Your task to perform on an android device: Open network settings Image 0: 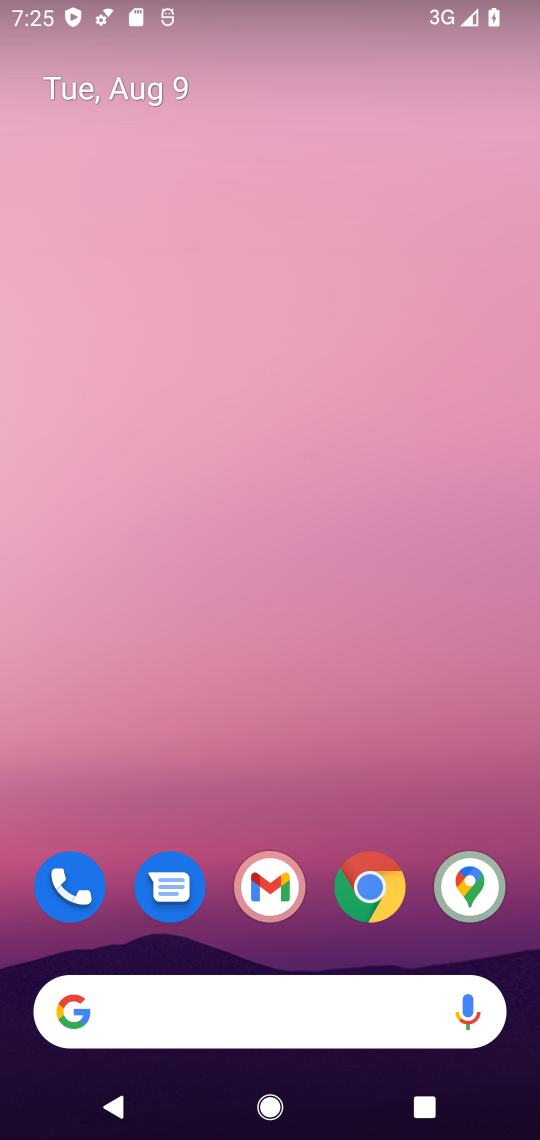
Step 0: drag from (294, 803) to (327, 0)
Your task to perform on an android device: Open network settings Image 1: 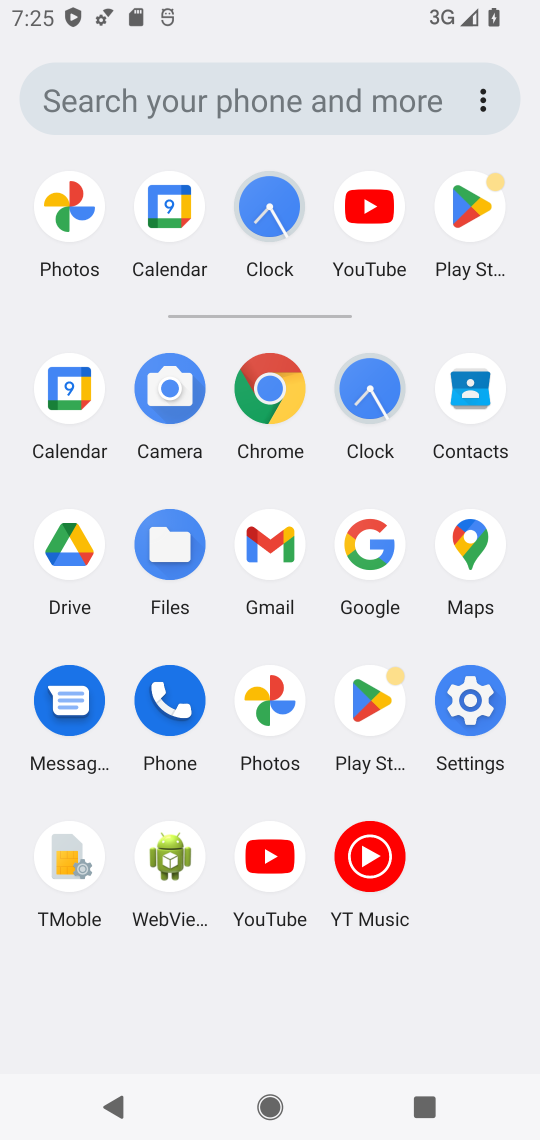
Step 1: click (466, 695)
Your task to perform on an android device: Open network settings Image 2: 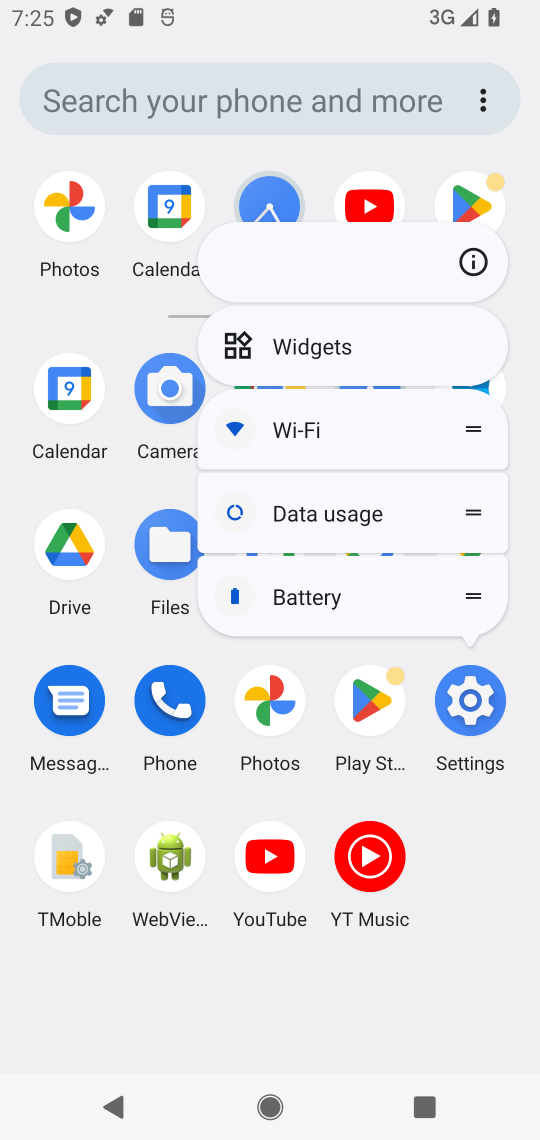
Step 2: click (466, 695)
Your task to perform on an android device: Open network settings Image 3: 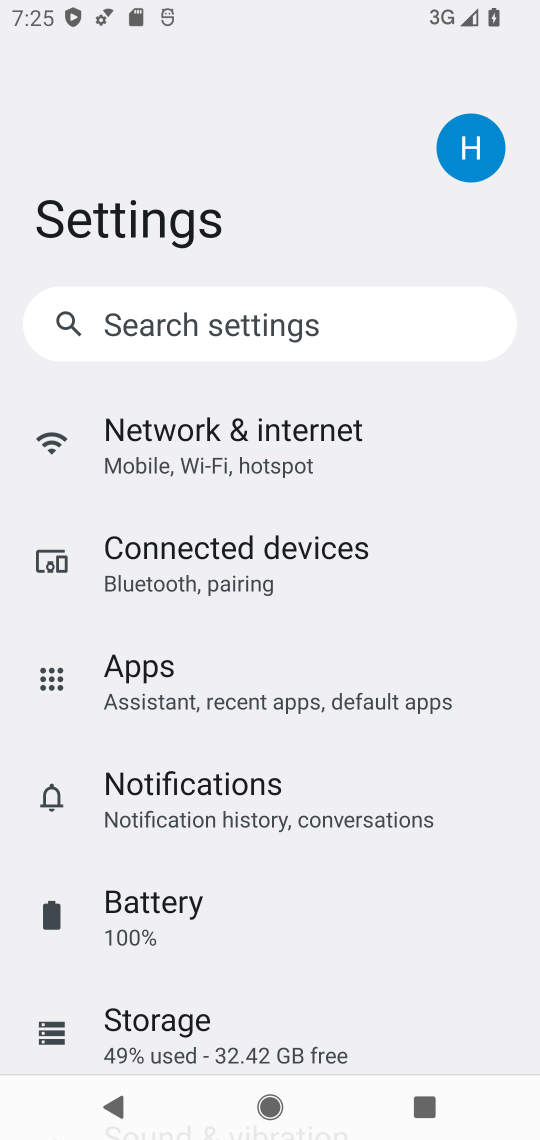
Step 3: click (333, 447)
Your task to perform on an android device: Open network settings Image 4: 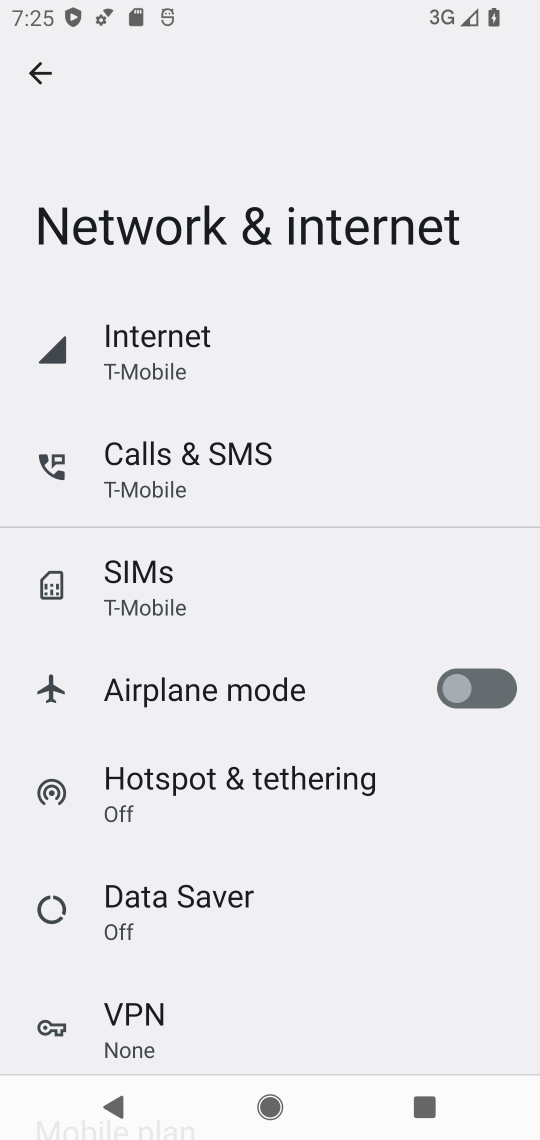
Step 4: task complete